Your task to perform on an android device: Go to Maps Image 0: 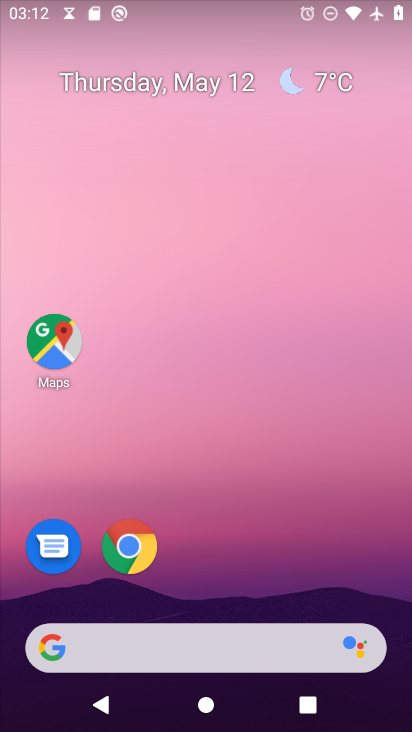
Step 0: click (47, 355)
Your task to perform on an android device: Go to Maps Image 1: 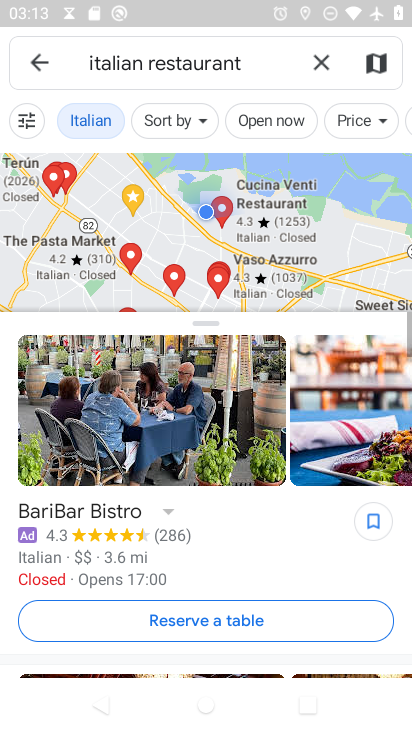
Step 1: click (42, 66)
Your task to perform on an android device: Go to Maps Image 2: 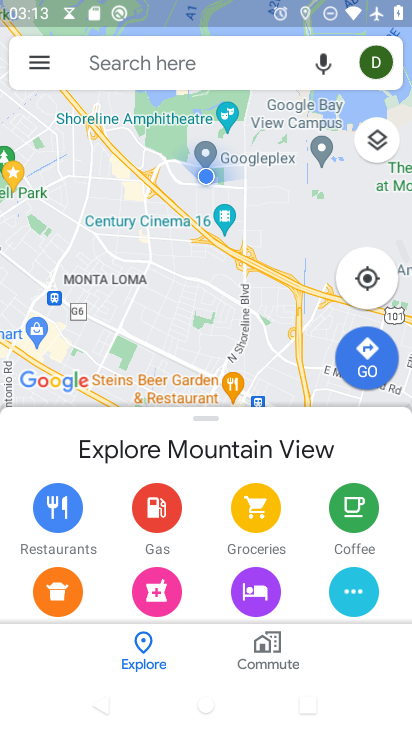
Step 2: task complete